Your task to perform on an android device: Go to settings Image 0: 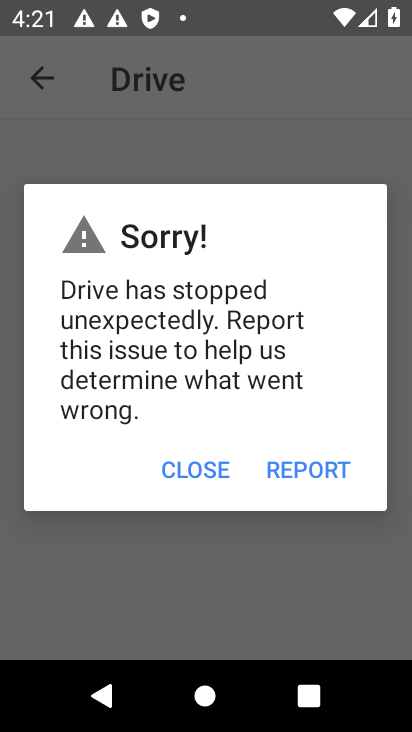
Step 0: press home button
Your task to perform on an android device: Go to settings Image 1: 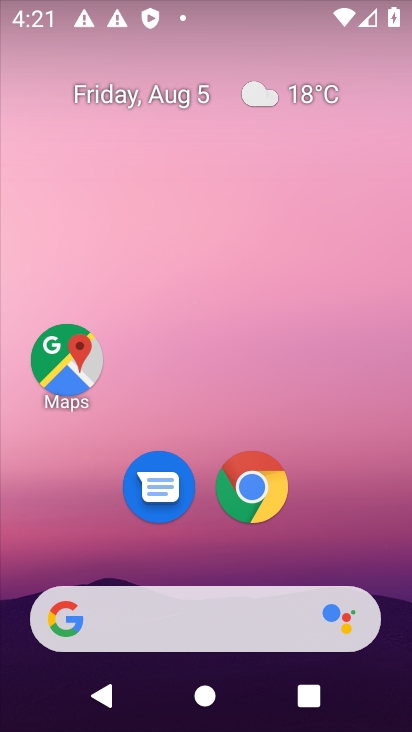
Step 1: drag from (218, 373) to (248, 74)
Your task to perform on an android device: Go to settings Image 2: 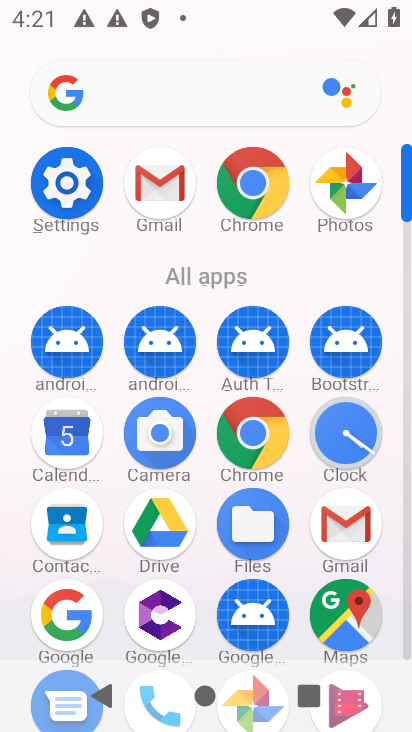
Step 2: click (49, 178)
Your task to perform on an android device: Go to settings Image 3: 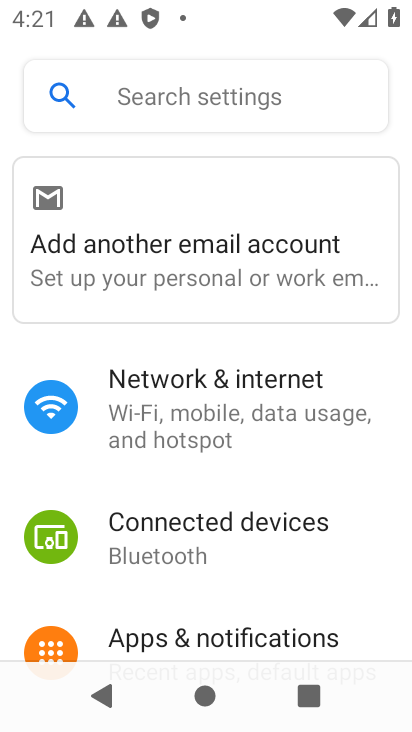
Step 3: task complete